Your task to perform on an android device: Go to Reddit.com Image 0: 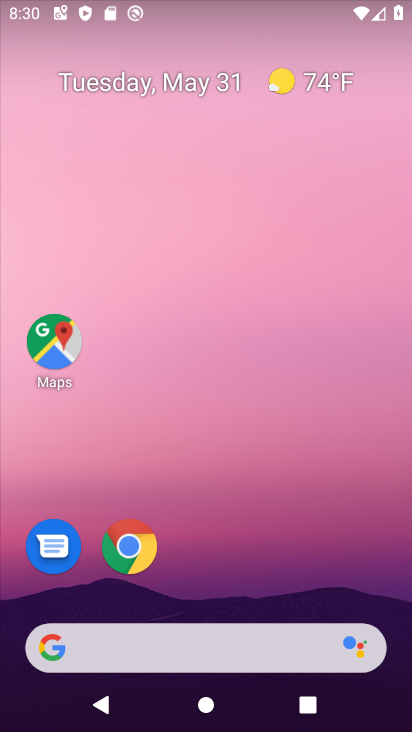
Step 0: drag from (230, 555) to (262, 98)
Your task to perform on an android device: Go to Reddit.com Image 1: 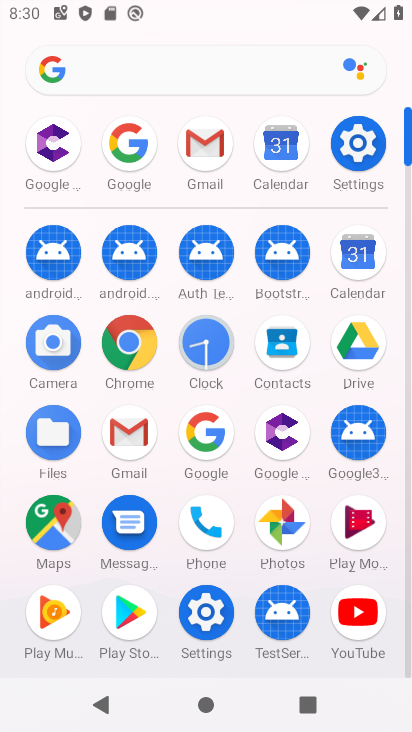
Step 1: click (130, 146)
Your task to perform on an android device: Go to Reddit.com Image 2: 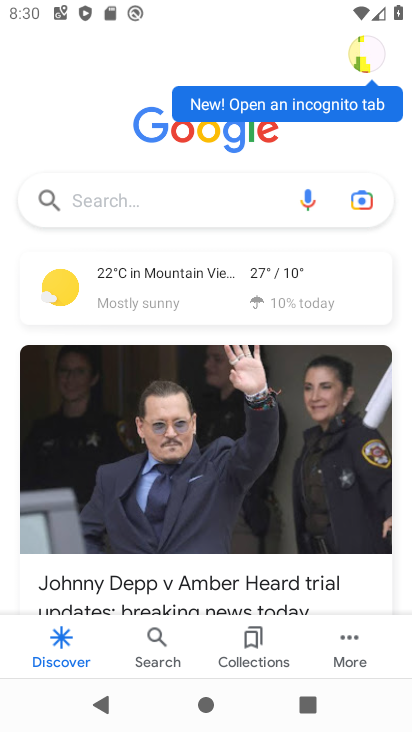
Step 2: click (156, 199)
Your task to perform on an android device: Go to Reddit.com Image 3: 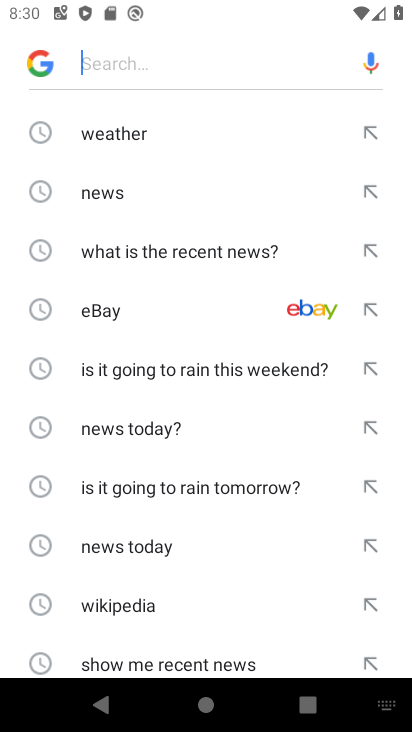
Step 3: drag from (194, 595) to (181, 198)
Your task to perform on an android device: Go to Reddit.com Image 4: 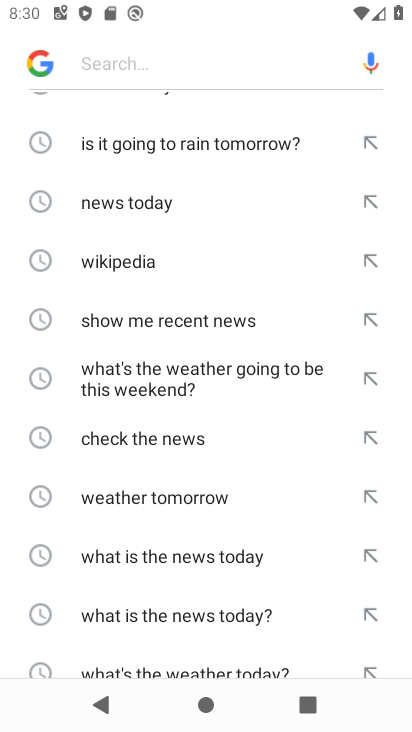
Step 4: drag from (193, 633) to (186, 342)
Your task to perform on an android device: Go to Reddit.com Image 5: 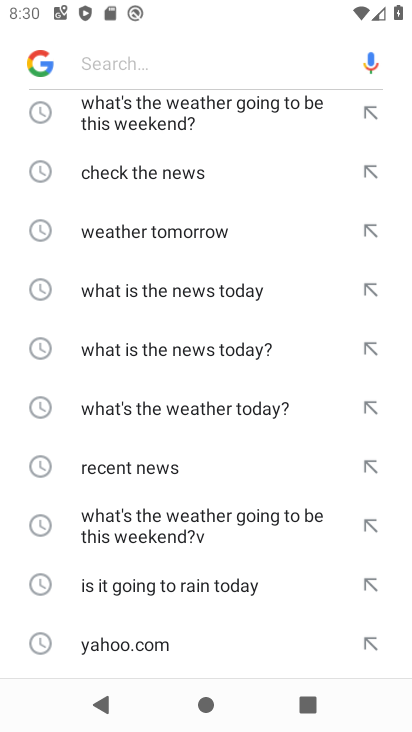
Step 5: drag from (198, 633) to (205, 261)
Your task to perform on an android device: Go to Reddit.com Image 6: 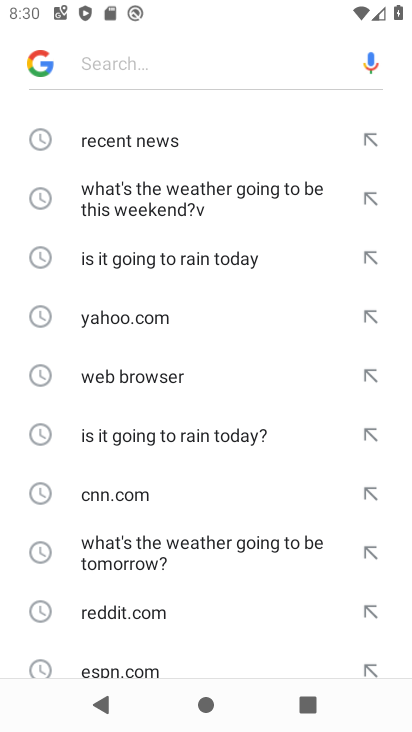
Step 6: click (89, 611)
Your task to perform on an android device: Go to Reddit.com Image 7: 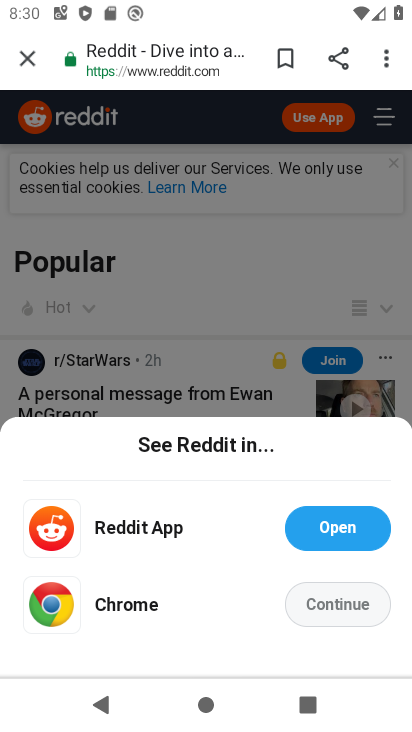
Step 7: task complete